Your task to perform on an android device: check android version Image 0: 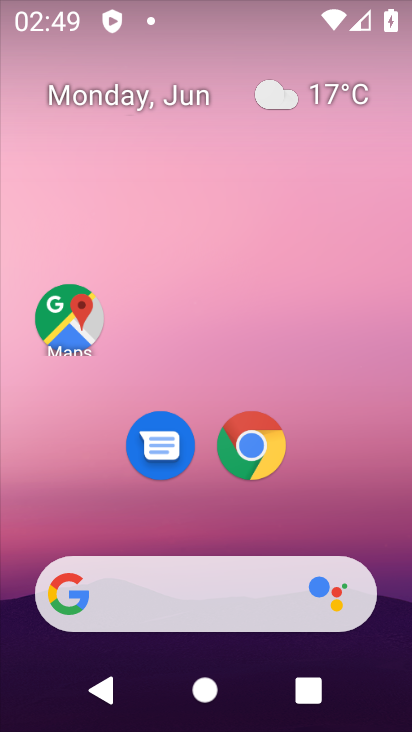
Step 0: drag from (138, 585) to (244, 109)
Your task to perform on an android device: check android version Image 1: 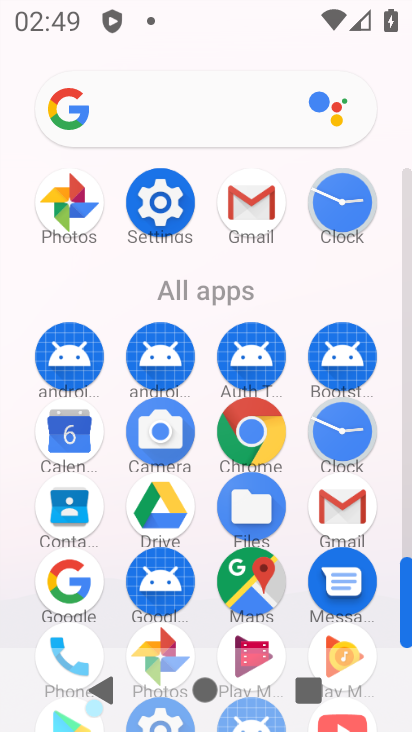
Step 1: drag from (169, 587) to (259, 242)
Your task to perform on an android device: check android version Image 2: 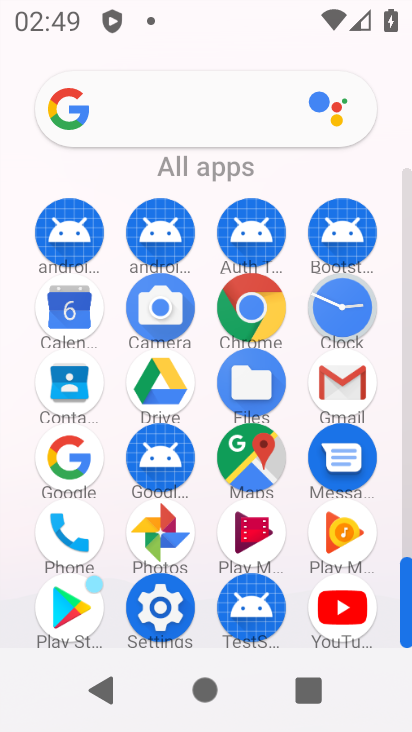
Step 2: click (171, 621)
Your task to perform on an android device: check android version Image 3: 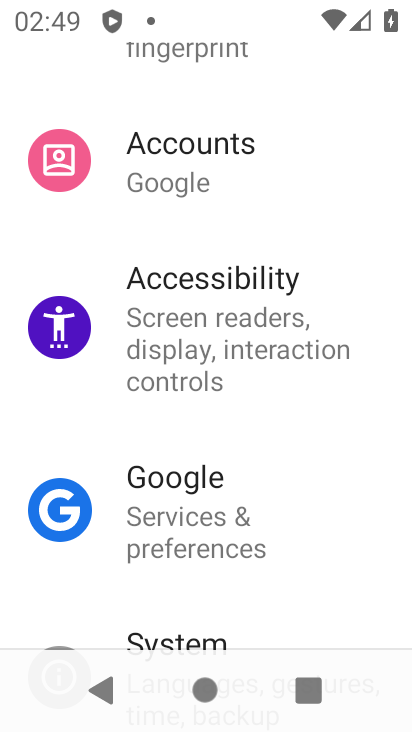
Step 3: drag from (182, 577) to (358, 94)
Your task to perform on an android device: check android version Image 4: 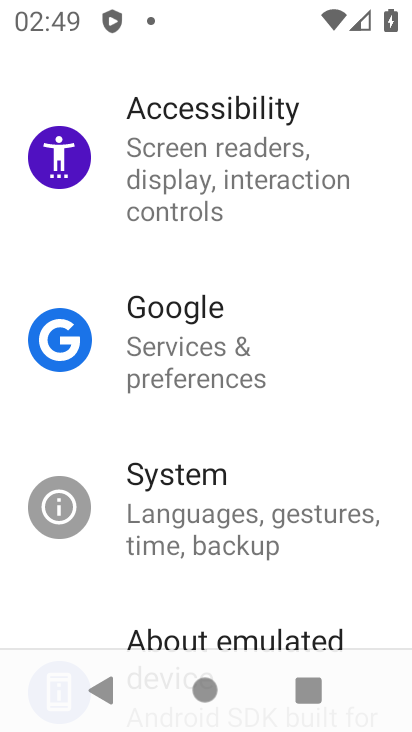
Step 4: drag from (239, 582) to (389, 209)
Your task to perform on an android device: check android version Image 5: 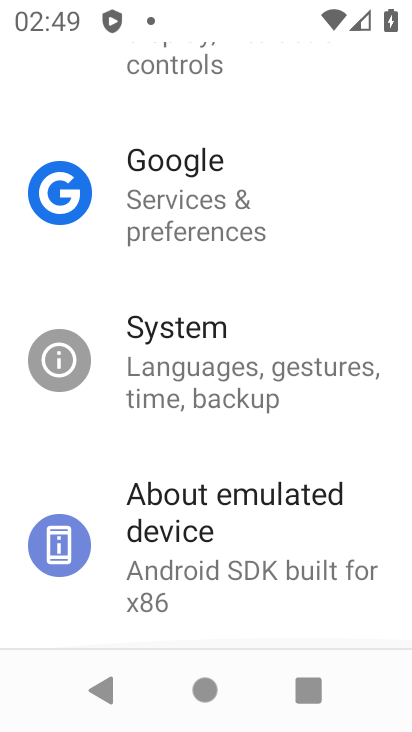
Step 5: click (240, 583)
Your task to perform on an android device: check android version Image 6: 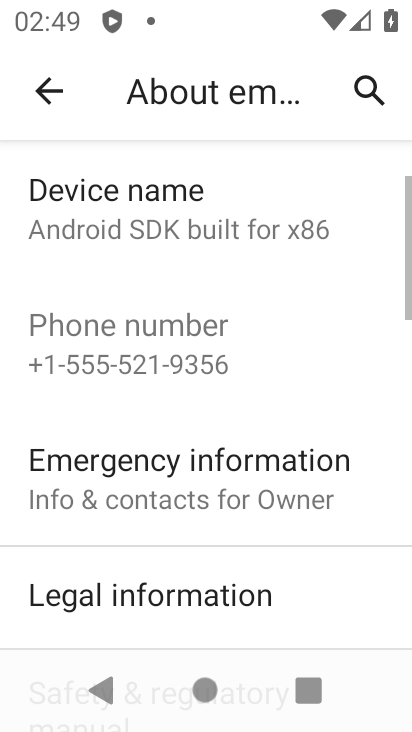
Step 6: drag from (235, 582) to (361, 177)
Your task to perform on an android device: check android version Image 7: 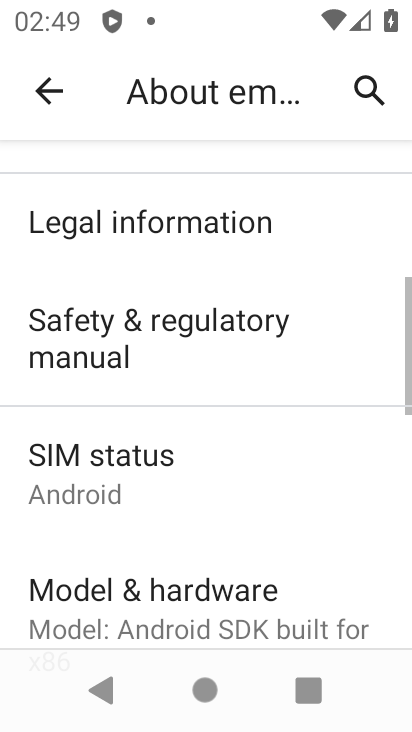
Step 7: drag from (191, 542) to (333, 155)
Your task to perform on an android device: check android version Image 8: 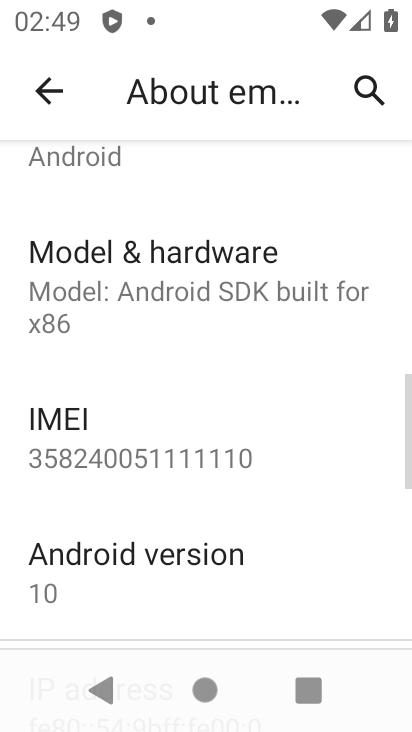
Step 8: click (223, 552)
Your task to perform on an android device: check android version Image 9: 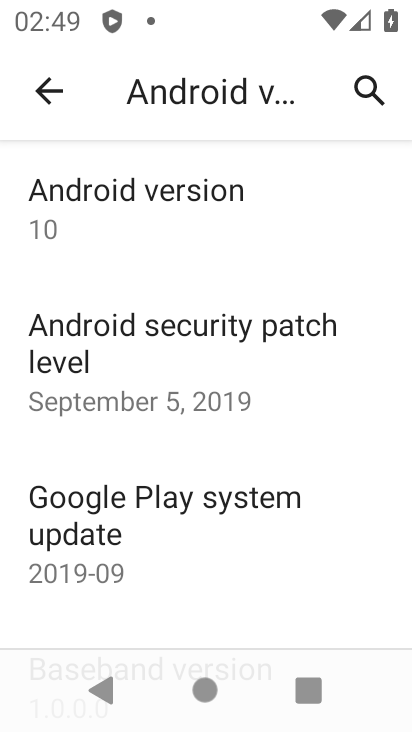
Step 9: task complete